Your task to perform on an android device: turn off wifi Image 0: 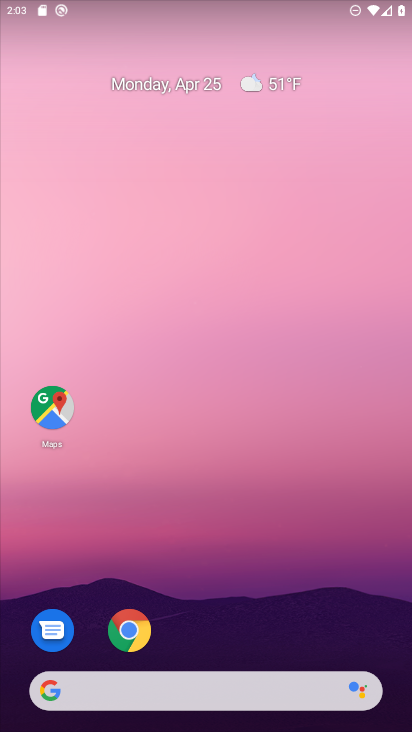
Step 0: drag from (295, 605) to (170, 0)
Your task to perform on an android device: turn off wifi Image 1: 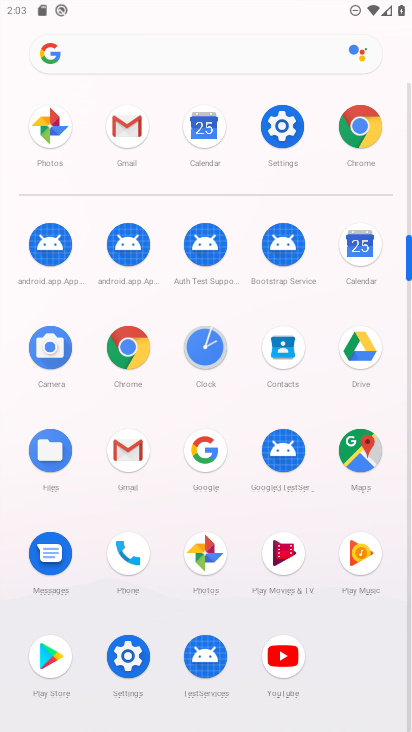
Step 1: click (289, 127)
Your task to perform on an android device: turn off wifi Image 2: 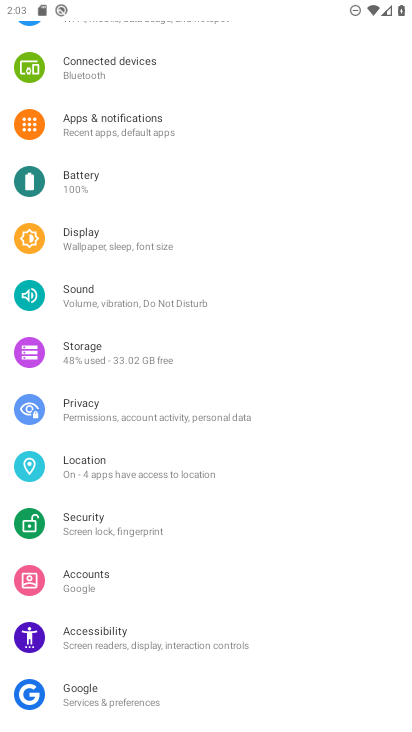
Step 2: drag from (254, 124) to (237, 569)
Your task to perform on an android device: turn off wifi Image 3: 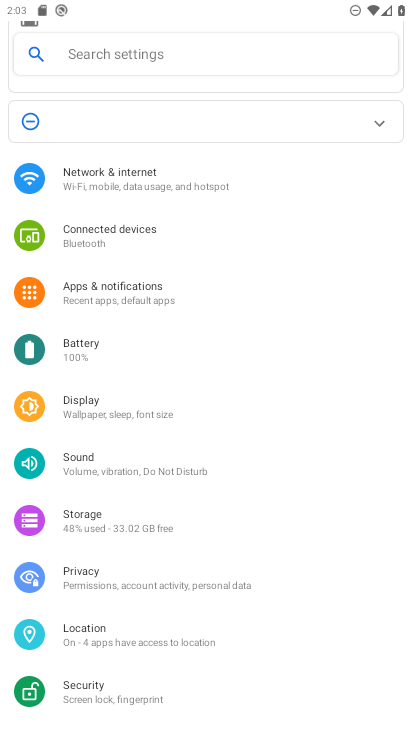
Step 3: drag from (165, 284) to (121, 536)
Your task to perform on an android device: turn off wifi Image 4: 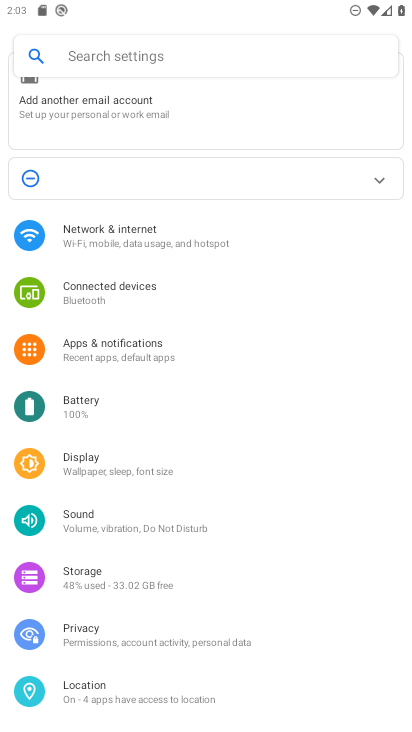
Step 4: click (102, 234)
Your task to perform on an android device: turn off wifi Image 5: 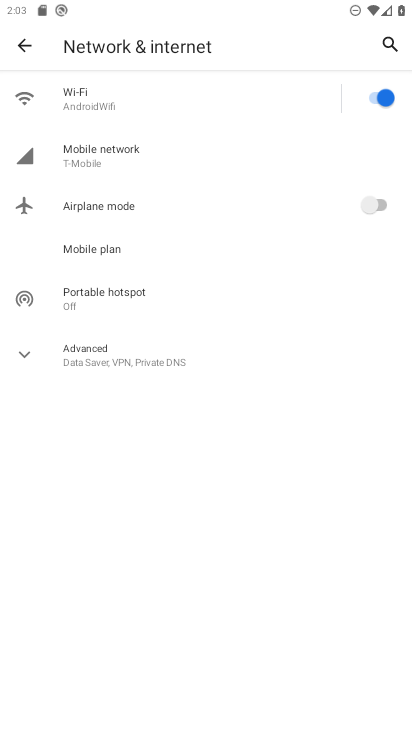
Step 5: click (379, 100)
Your task to perform on an android device: turn off wifi Image 6: 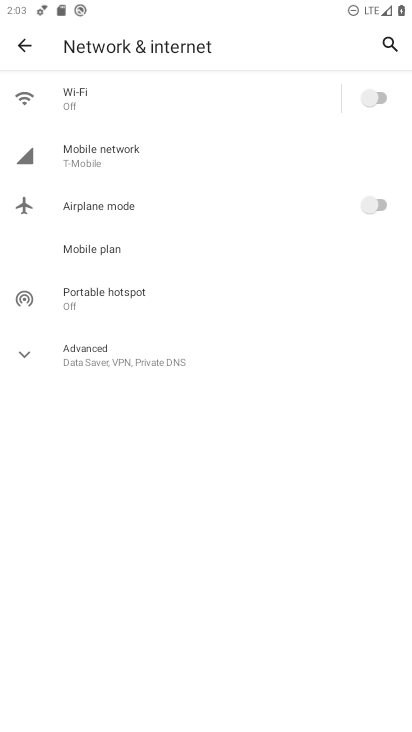
Step 6: task complete